Your task to perform on an android device: Open Amazon Image 0: 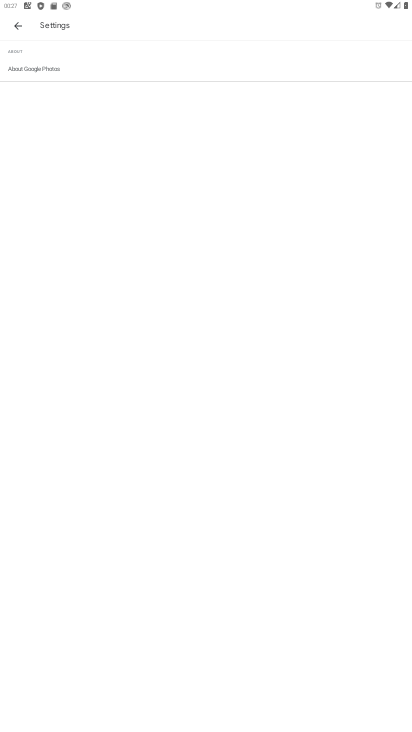
Step 0: press home button
Your task to perform on an android device: Open Amazon Image 1: 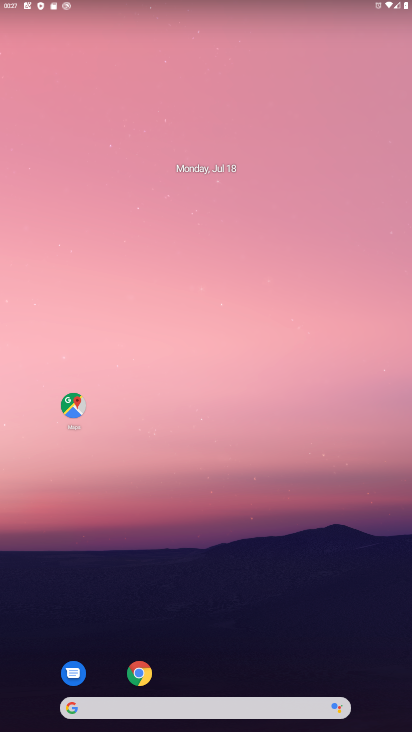
Step 1: drag from (284, 659) to (259, 264)
Your task to perform on an android device: Open Amazon Image 2: 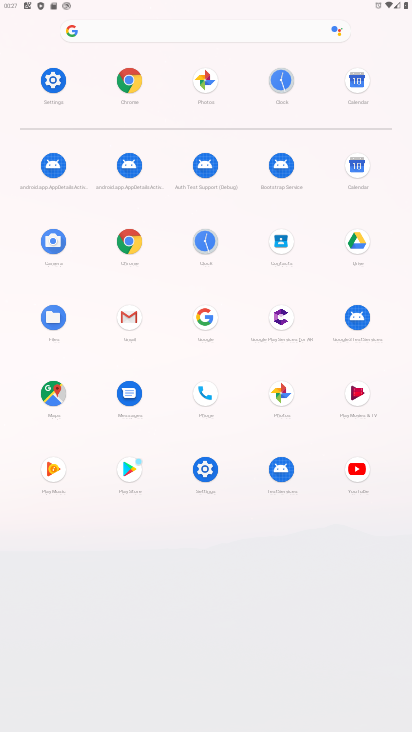
Step 2: click (140, 473)
Your task to perform on an android device: Open Amazon Image 3: 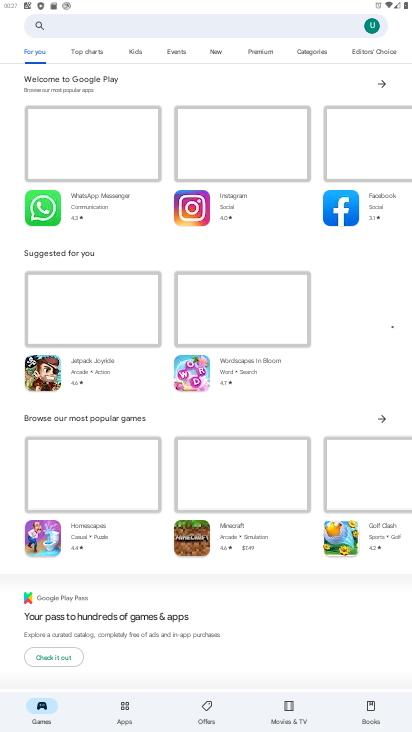
Step 3: click (238, 27)
Your task to perform on an android device: Open Amazon Image 4: 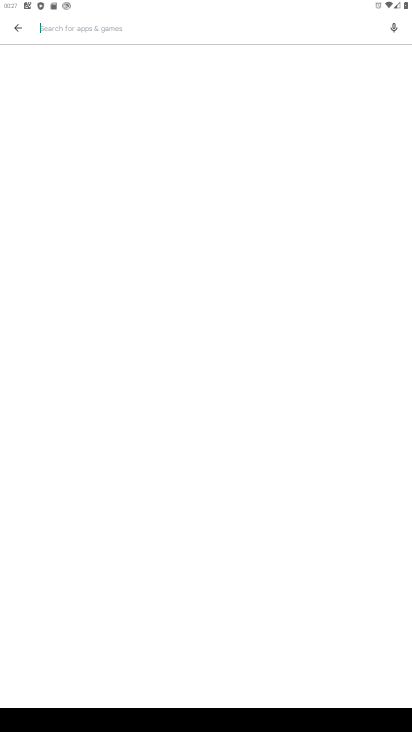
Step 4: press home button
Your task to perform on an android device: Open Amazon Image 5: 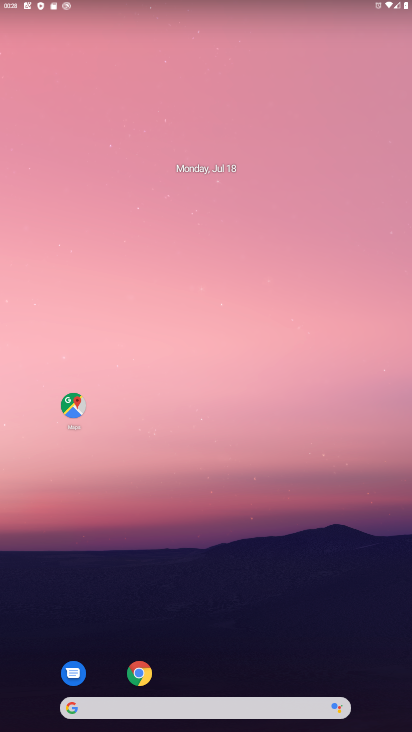
Step 5: drag from (252, 680) to (246, 127)
Your task to perform on an android device: Open Amazon Image 6: 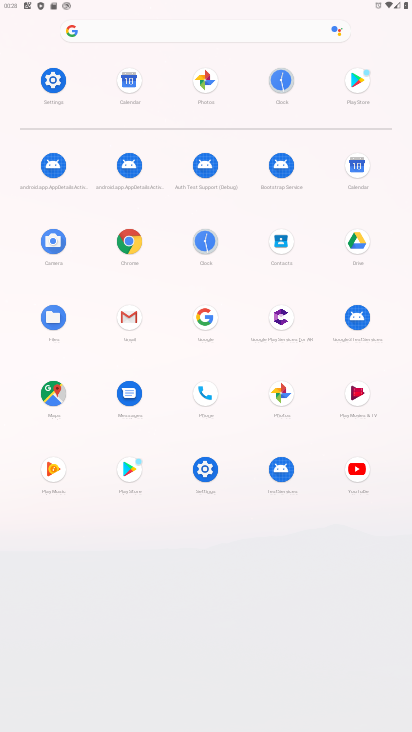
Step 6: click (283, 584)
Your task to perform on an android device: Open Amazon Image 7: 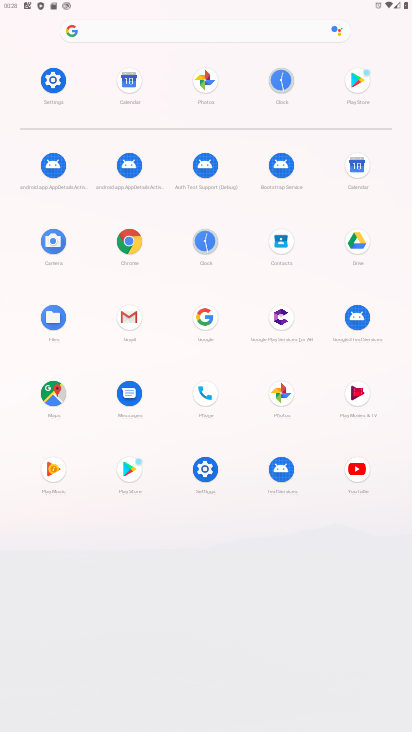
Step 7: click (127, 253)
Your task to perform on an android device: Open Amazon Image 8: 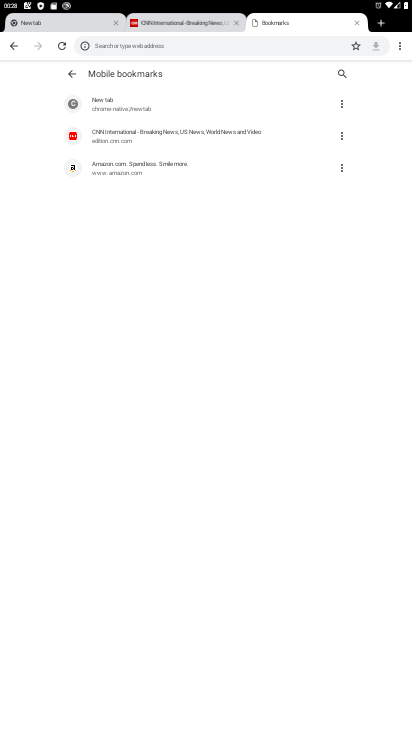
Step 8: click (184, 45)
Your task to perform on an android device: Open Amazon Image 9: 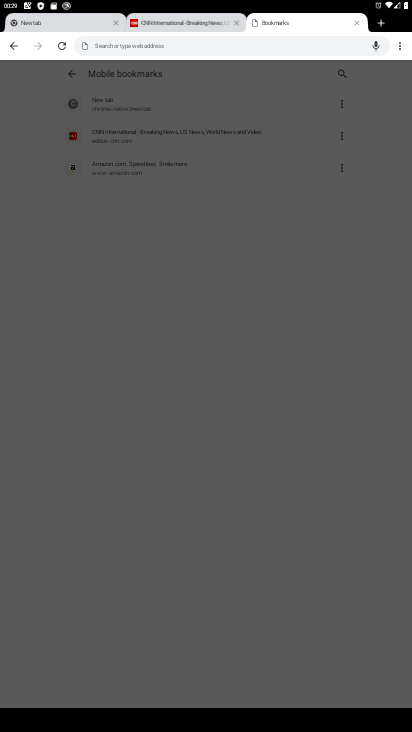
Step 9: type "amazon"
Your task to perform on an android device: Open Amazon Image 10: 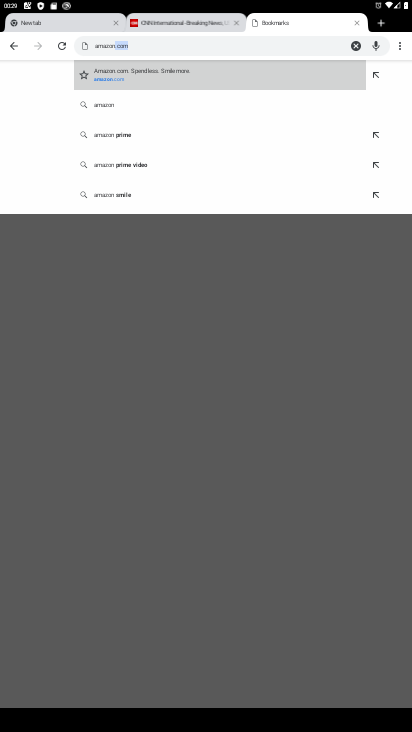
Step 10: click (166, 72)
Your task to perform on an android device: Open Amazon Image 11: 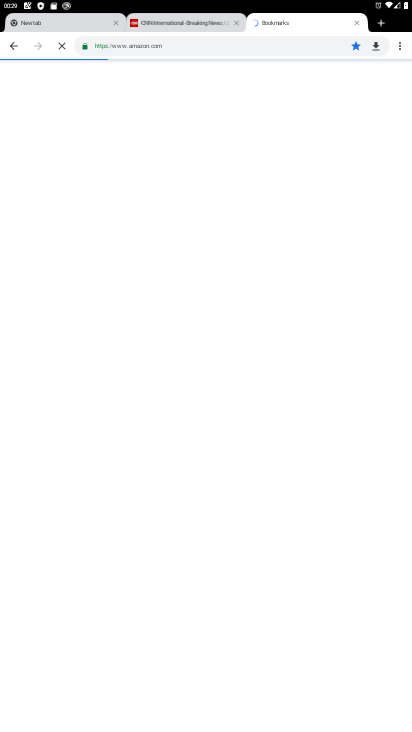
Step 11: task complete